Your task to perform on an android device: Open Amazon Image 0: 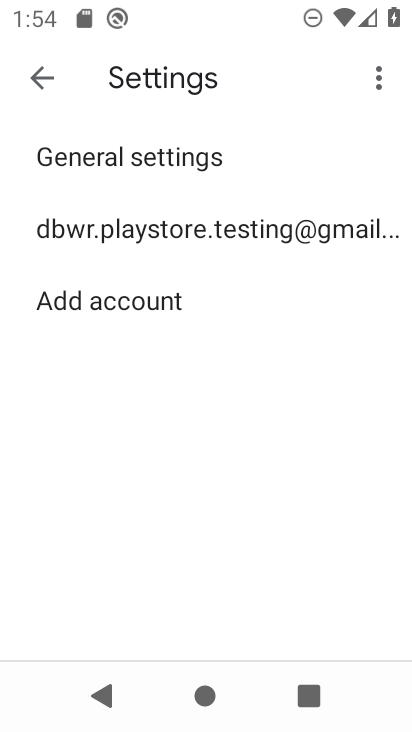
Step 0: press home button
Your task to perform on an android device: Open Amazon Image 1: 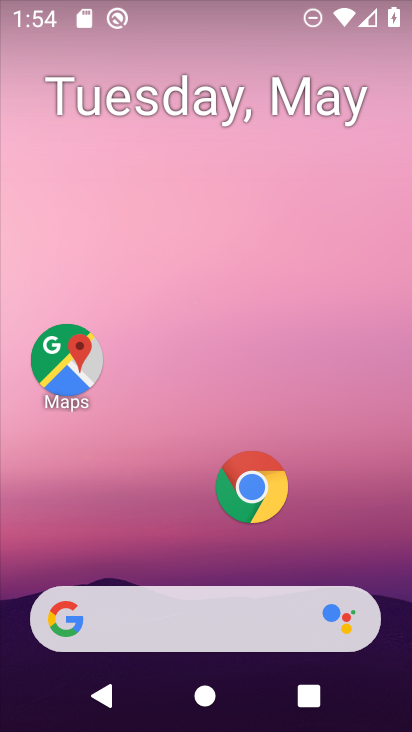
Step 1: click (243, 494)
Your task to perform on an android device: Open Amazon Image 2: 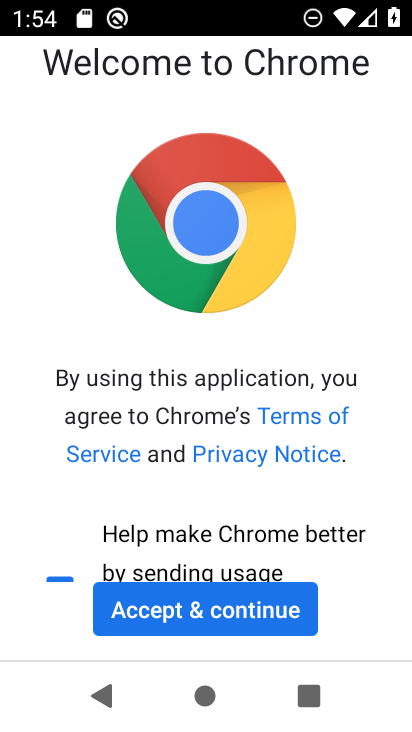
Step 2: click (221, 606)
Your task to perform on an android device: Open Amazon Image 3: 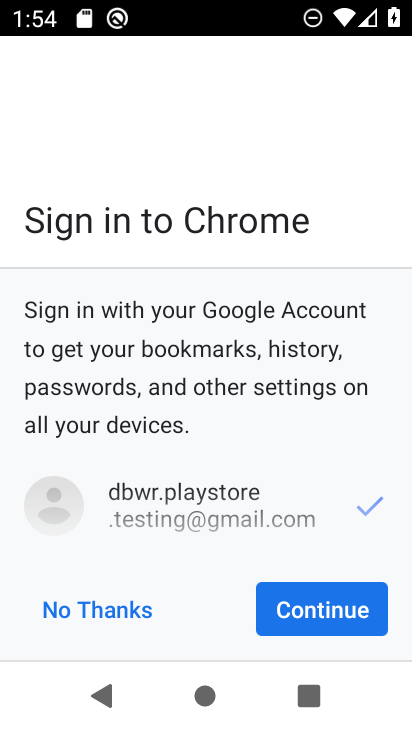
Step 3: click (302, 603)
Your task to perform on an android device: Open Amazon Image 4: 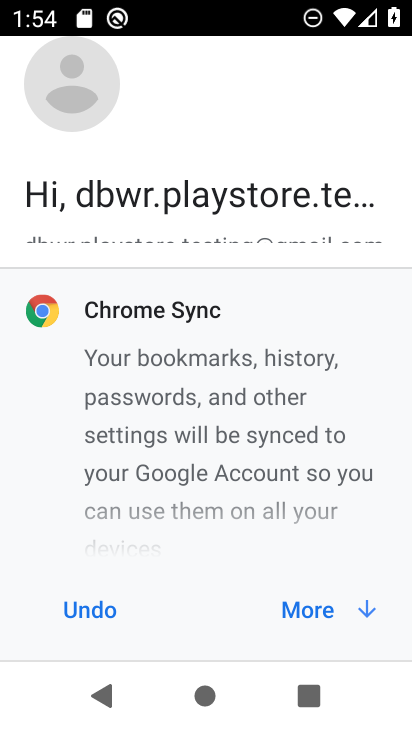
Step 4: click (300, 602)
Your task to perform on an android device: Open Amazon Image 5: 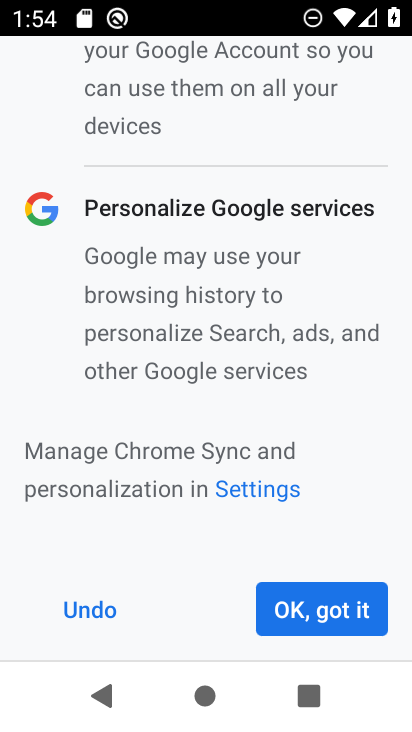
Step 5: click (300, 602)
Your task to perform on an android device: Open Amazon Image 6: 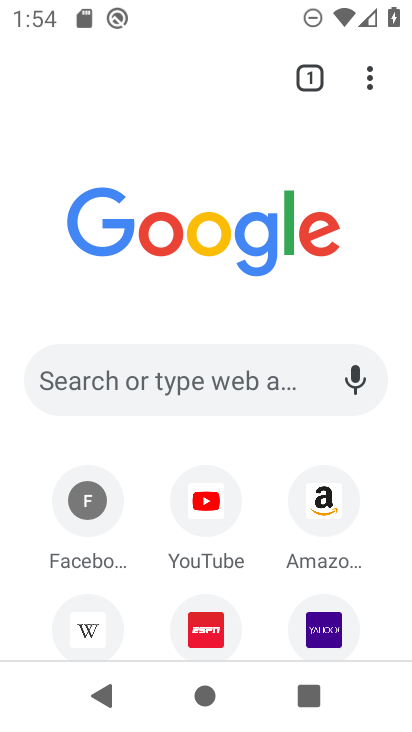
Step 6: click (332, 523)
Your task to perform on an android device: Open Amazon Image 7: 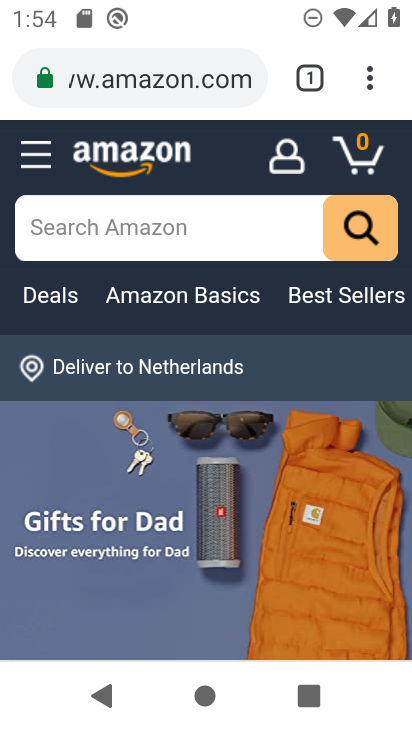
Step 7: task complete